Your task to perform on an android device: read, delete, or share a saved page in the chrome app Image 0: 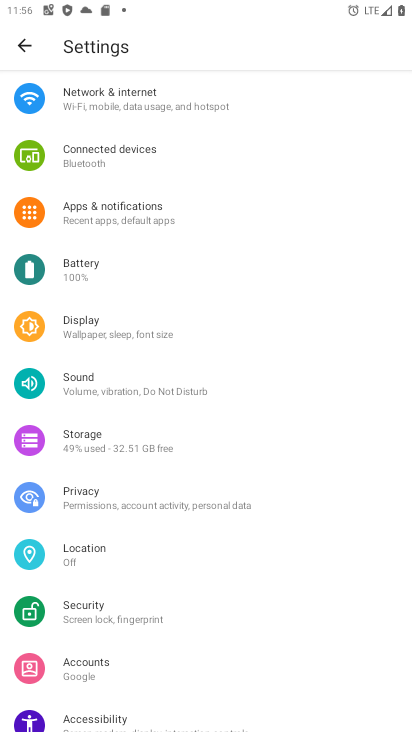
Step 0: press home button
Your task to perform on an android device: read, delete, or share a saved page in the chrome app Image 1: 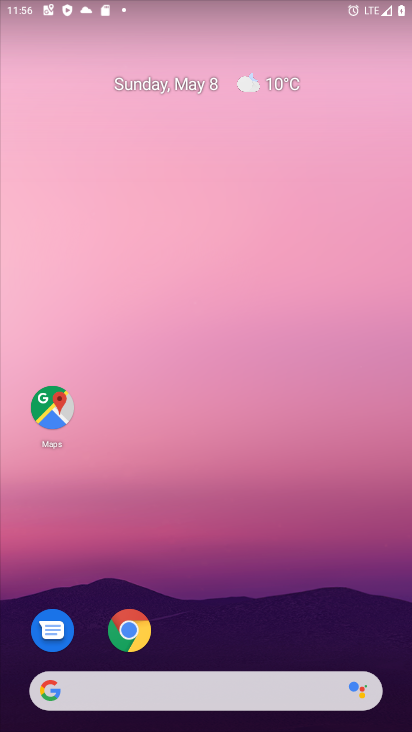
Step 1: drag from (198, 626) to (165, 81)
Your task to perform on an android device: read, delete, or share a saved page in the chrome app Image 2: 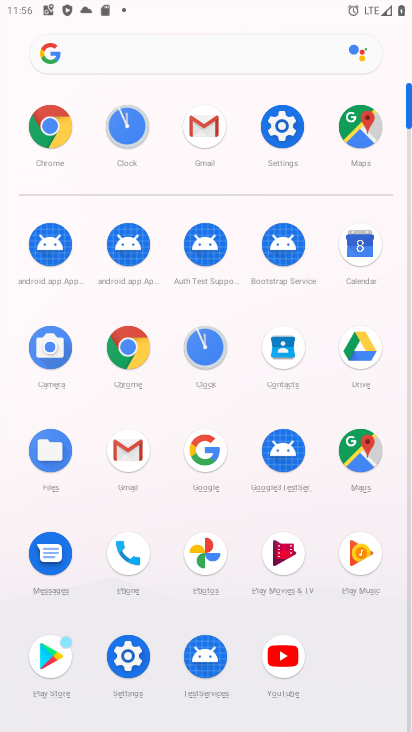
Step 2: click (66, 137)
Your task to perform on an android device: read, delete, or share a saved page in the chrome app Image 3: 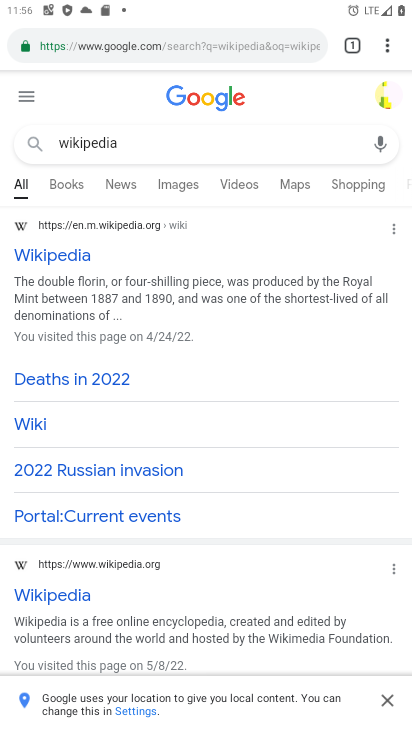
Step 3: task complete